Your task to perform on an android device: Go to sound settings Image 0: 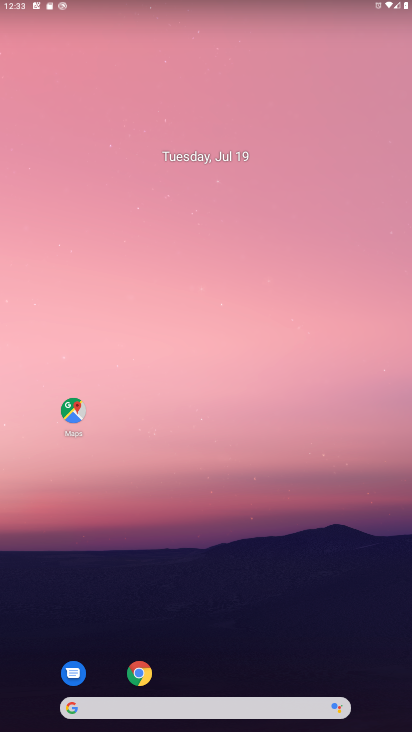
Step 0: drag from (246, 312) to (260, 18)
Your task to perform on an android device: Go to sound settings Image 1: 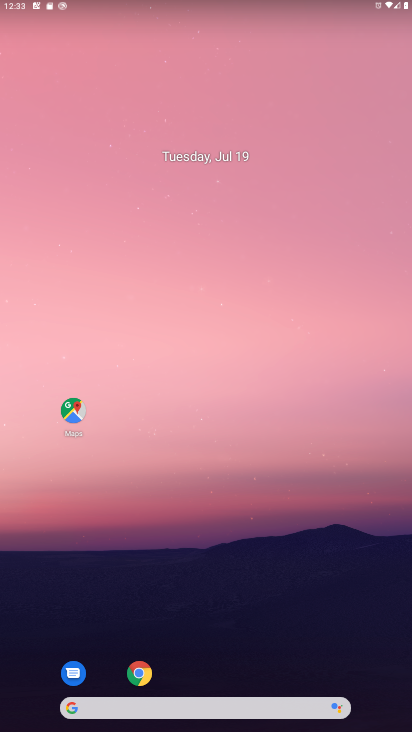
Step 1: drag from (207, 673) to (247, 81)
Your task to perform on an android device: Go to sound settings Image 2: 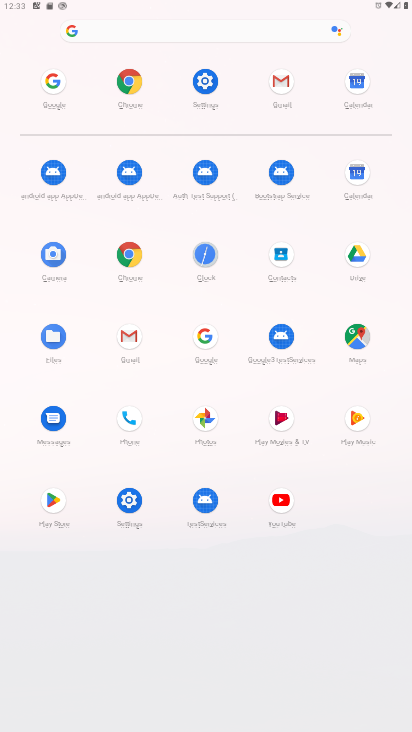
Step 2: click (210, 96)
Your task to perform on an android device: Go to sound settings Image 3: 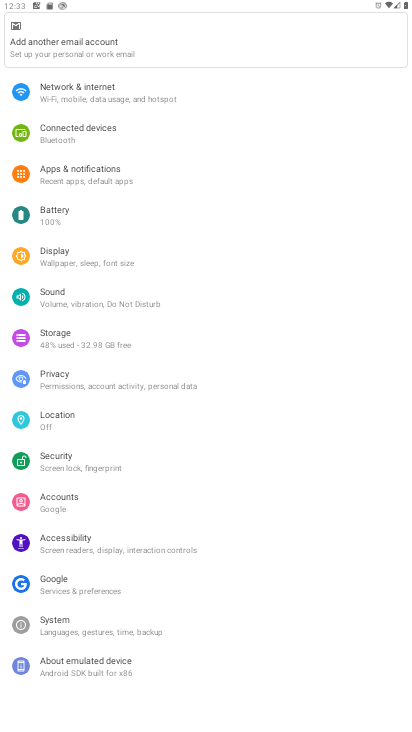
Step 3: click (38, 287)
Your task to perform on an android device: Go to sound settings Image 4: 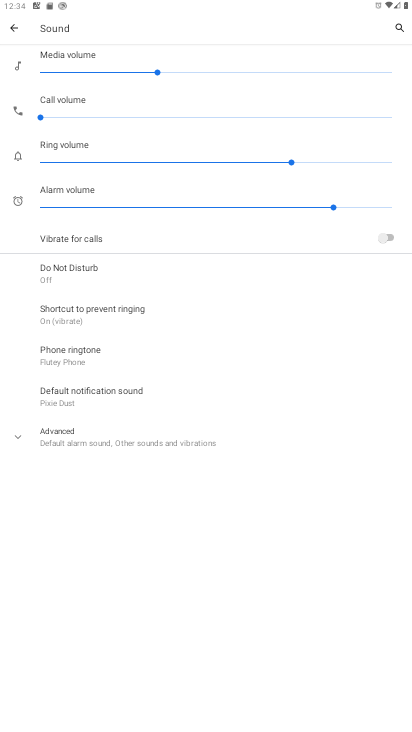
Step 4: task complete